Your task to perform on an android device: Open internet settings Image 0: 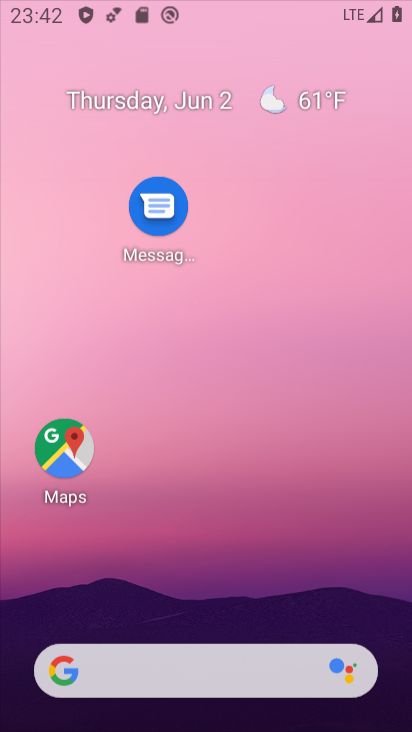
Step 0: drag from (205, 5) to (30, 198)
Your task to perform on an android device: Open internet settings Image 1: 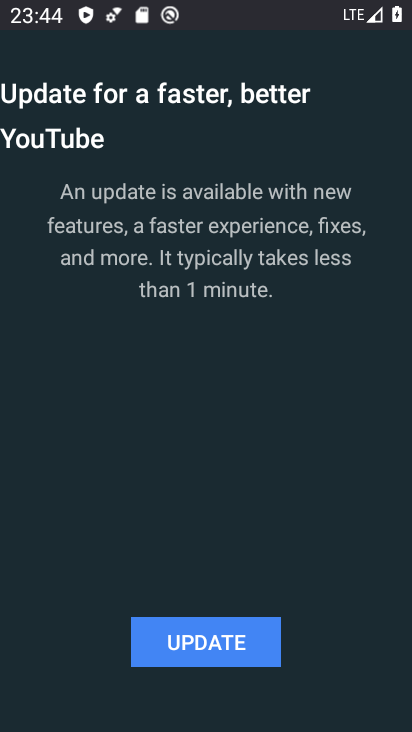
Step 1: press home button
Your task to perform on an android device: Open internet settings Image 2: 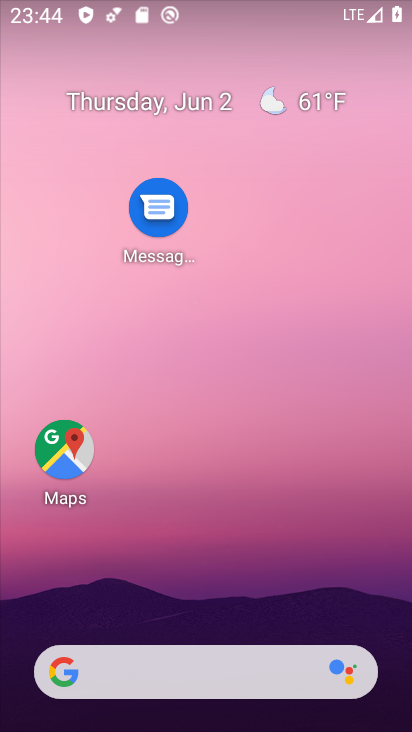
Step 2: drag from (204, 645) to (204, 43)
Your task to perform on an android device: Open internet settings Image 3: 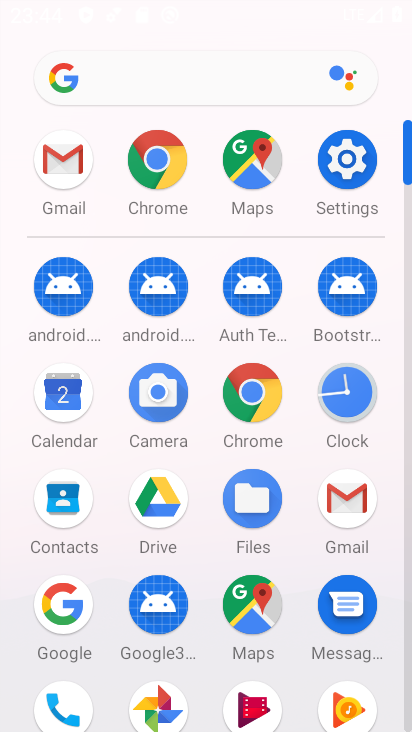
Step 3: click (346, 165)
Your task to perform on an android device: Open internet settings Image 4: 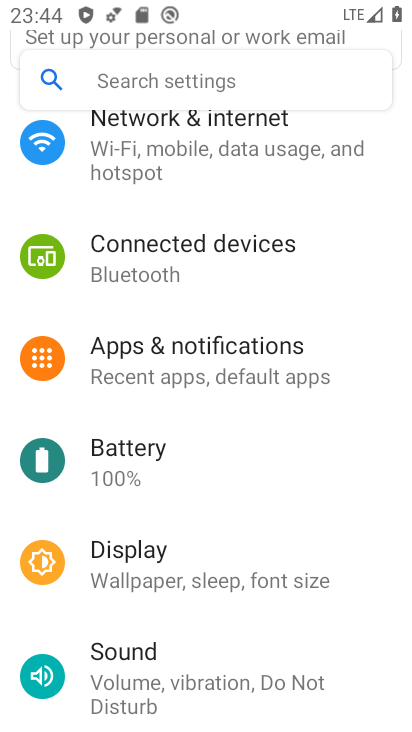
Step 4: click (198, 172)
Your task to perform on an android device: Open internet settings Image 5: 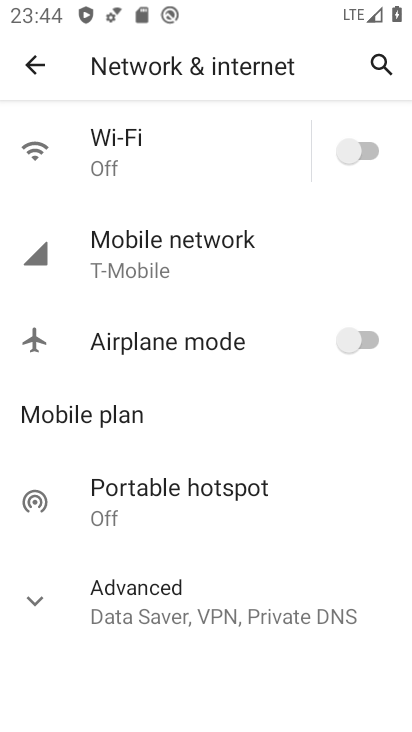
Step 5: click (150, 241)
Your task to perform on an android device: Open internet settings Image 6: 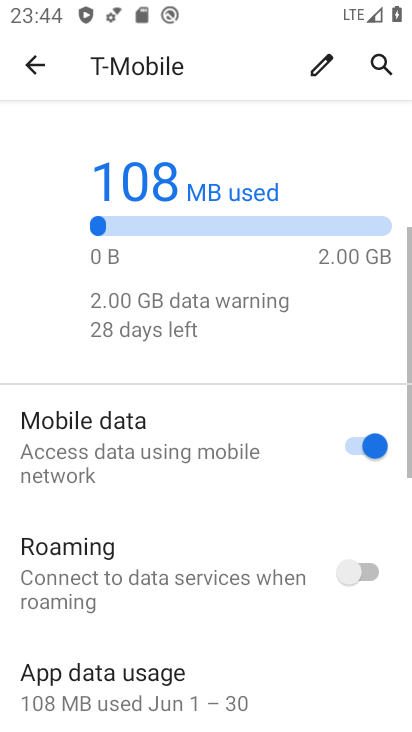
Step 6: task complete